Your task to perform on an android device: Open privacy settings Image 0: 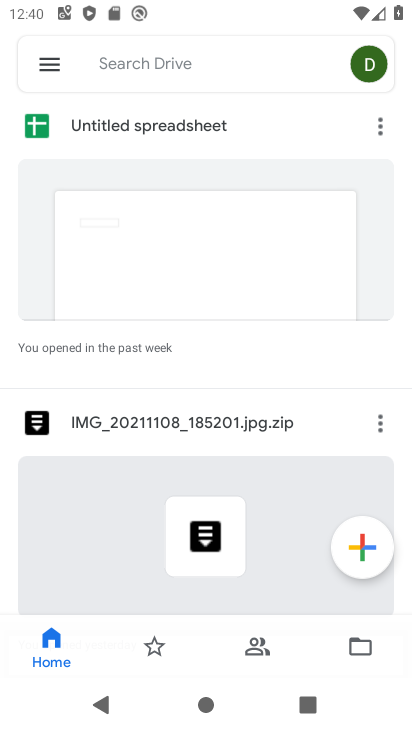
Step 0: press home button
Your task to perform on an android device: Open privacy settings Image 1: 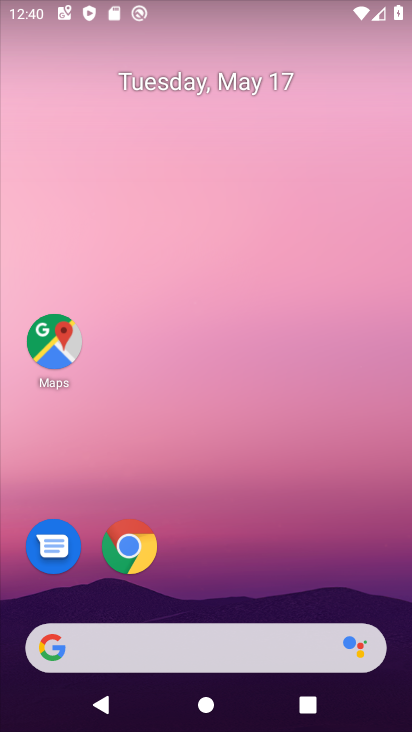
Step 1: drag from (399, 628) to (345, 66)
Your task to perform on an android device: Open privacy settings Image 2: 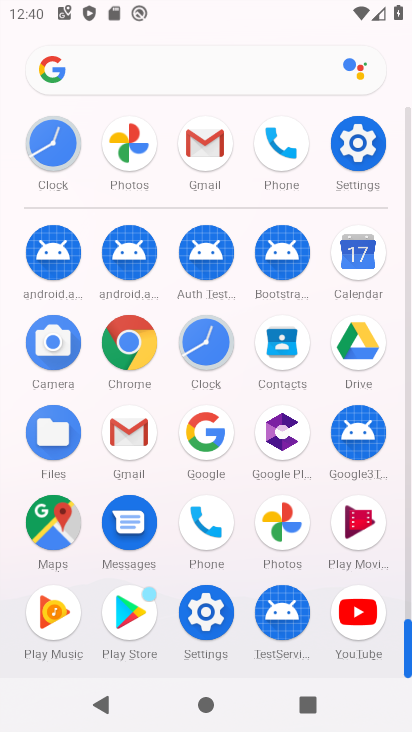
Step 2: click (205, 613)
Your task to perform on an android device: Open privacy settings Image 3: 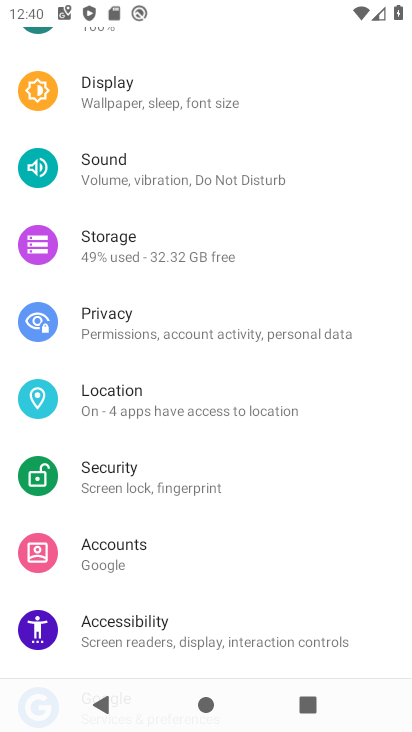
Step 3: click (106, 324)
Your task to perform on an android device: Open privacy settings Image 4: 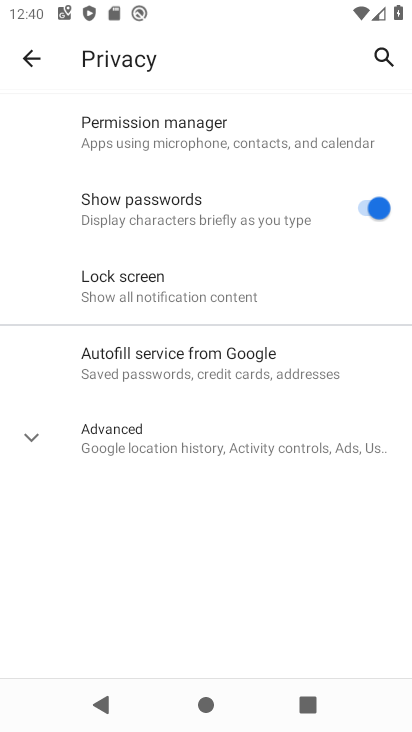
Step 4: click (36, 435)
Your task to perform on an android device: Open privacy settings Image 5: 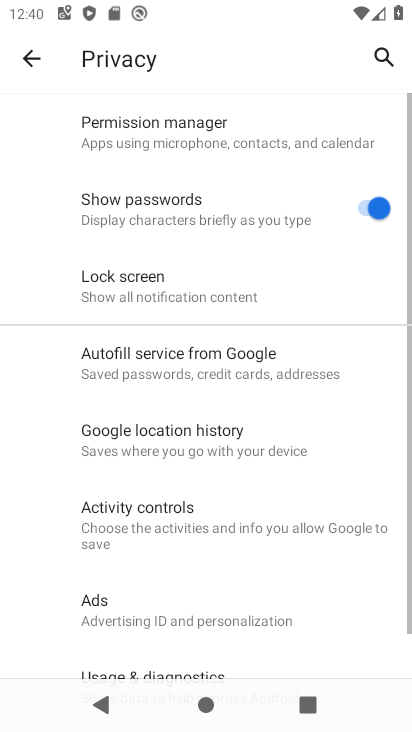
Step 5: task complete